Your task to perform on an android device: Open settings Image 0: 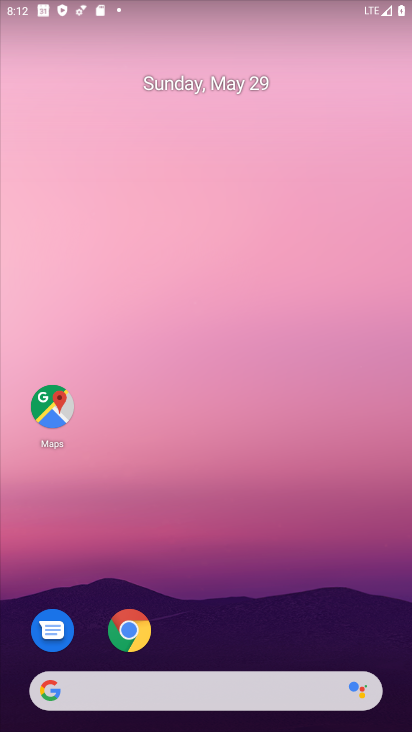
Step 0: drag from (216, 660) to (101, 35)
Your task to perform on an android device: Open settings Image 1: 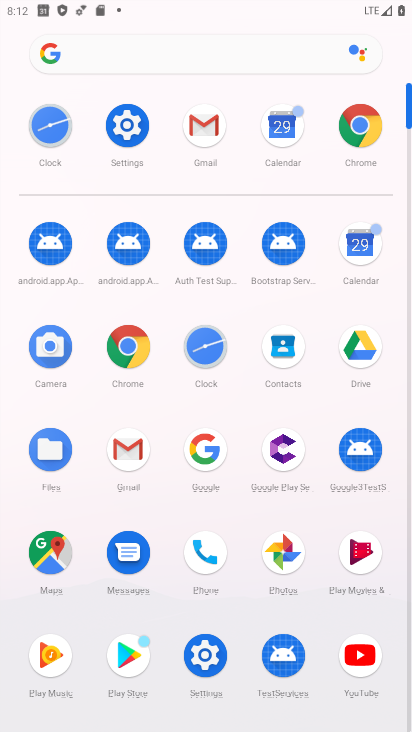
Step 1: click (118, 107)
Your task to perform on an android device: Open settings Image 2: 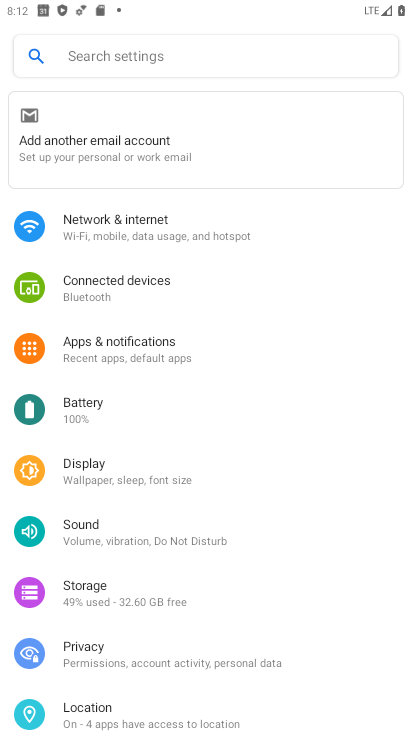
Step 2: task complete